Your task to perform on an android device: find photos in the google photos app Image 0: 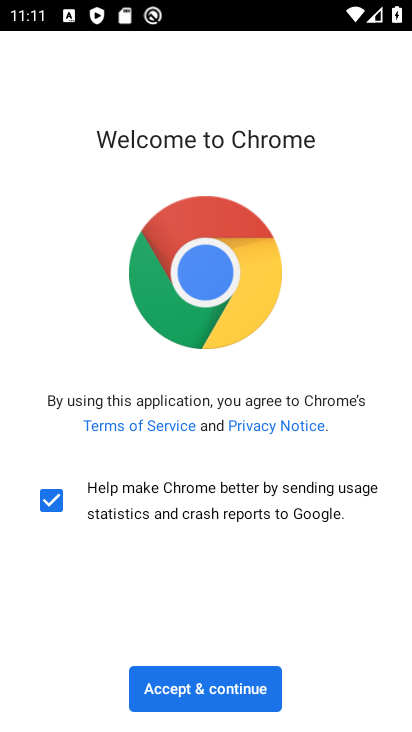
Step 0: press home button
Your task to perform on an android device: find photos in the google photos app Image 1: 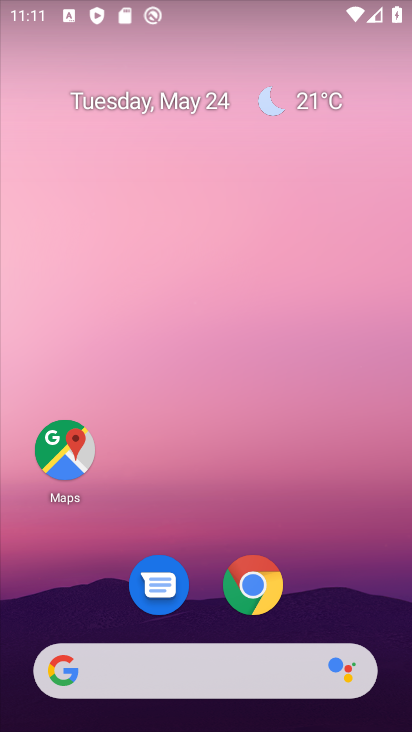
Step 1: drag from (218, 473) to (240, 42)
Your task to perform on an android device: find photos in the google photos app Image 2: 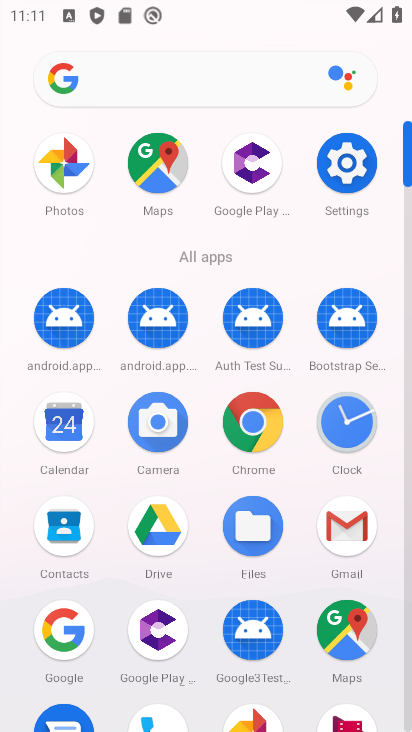
Step 2: click (72, 165)
Your task to perform on an android device: find photos in the google photos app Image 3: 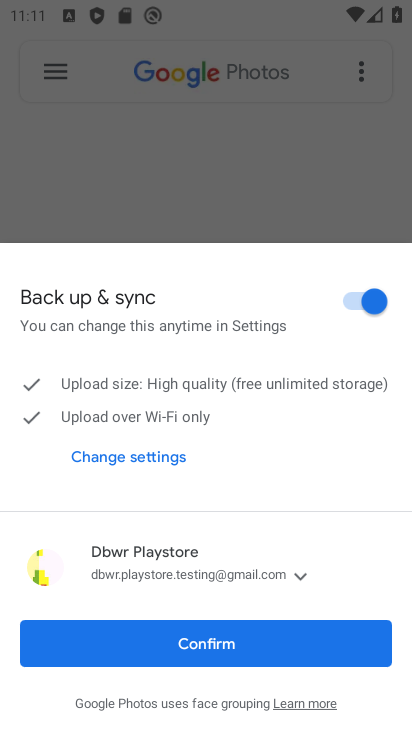
Step 3: click (321, 633)
Your task to perform on an android device: find photos in the google photos app Image 4: 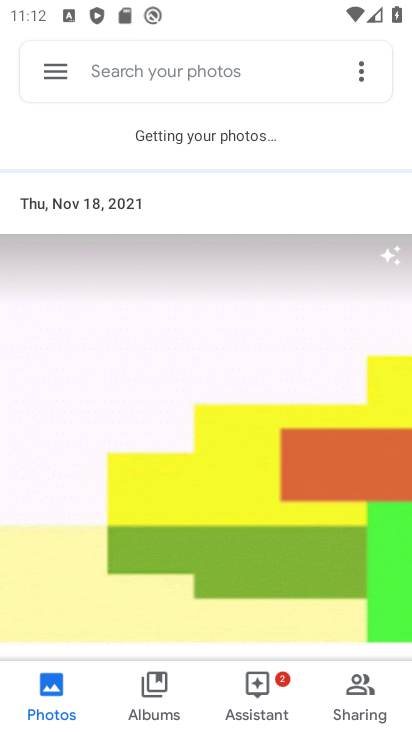
Step 4: task complete